Your task to perform on an android device: set the stopwatch Image 0: 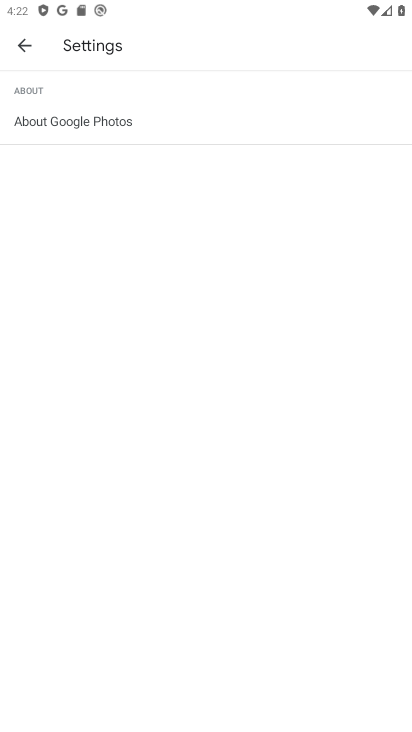
Step 0: press home button
Your task to perform on an android device: set the stopwatch Image 1: 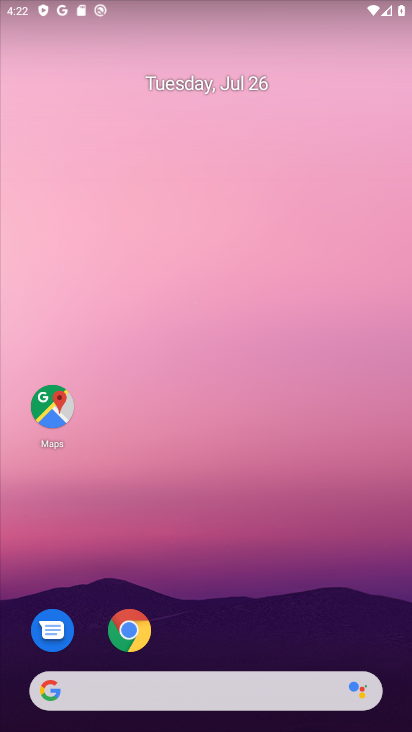
Step 1: drag from (306, 636) to (242, 100)
Your task to perform on an android device: set the stopwatch Image 2: 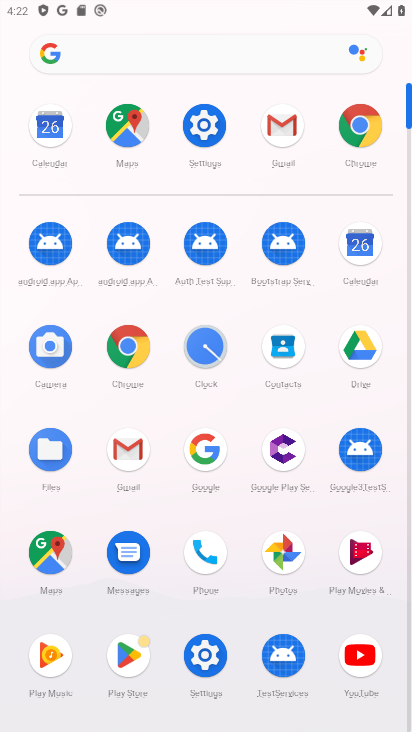
Step 2: click (206, 336)
Your task to perform on an android device: set the stopwatch Image 3: 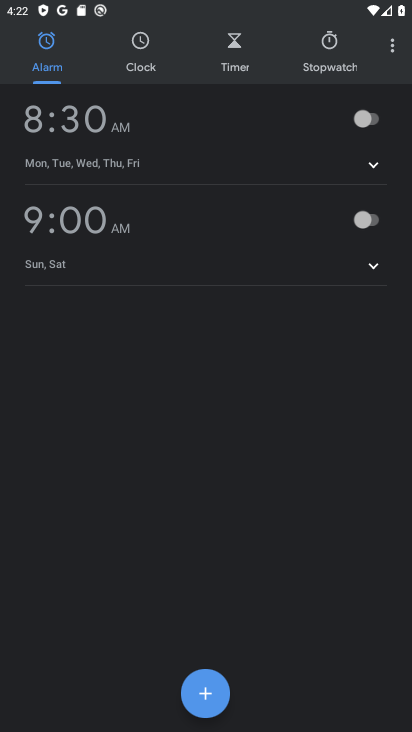
Step 3: click (345, 42)
Your task to perform on an android device: set the stopwatch Image 4: 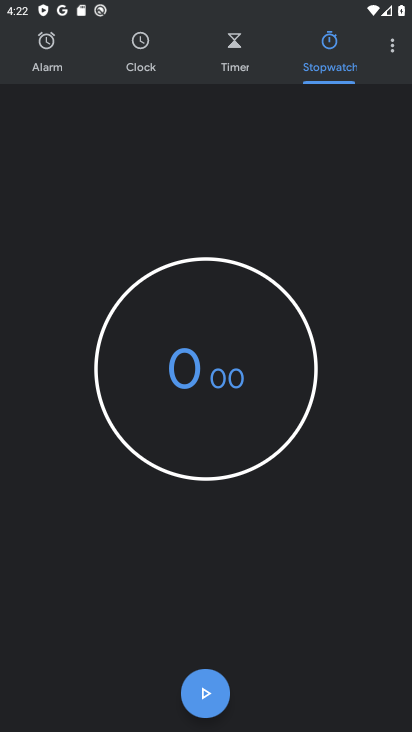
Step 4: click (211, 695)
Your task to perform on an android device: set the stopwatch Image 5: 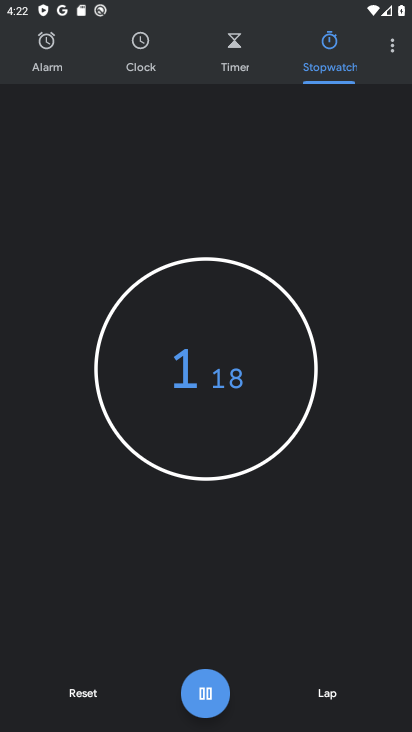
Step 5: click (211, 695)
Your task to perform on an android device: set the stopwatch Image 6: 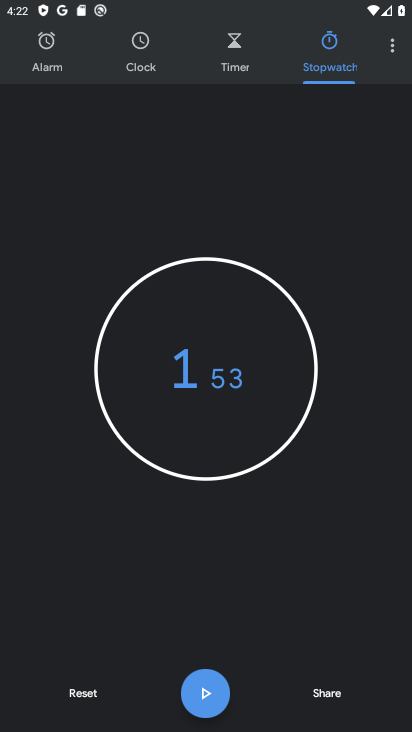
Step 6: task complete